Your task to perform on an android device: open app "Indeed Job Search" Image 0: 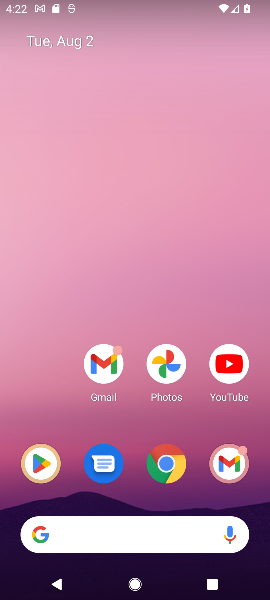
Step 0: click (40, 457)
Your task to perform on an android device: open app "Indeed Job Search" Image 1: 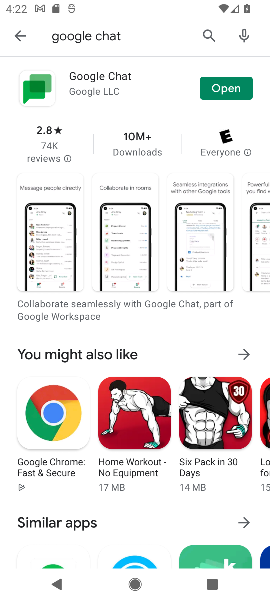
Step 1: click (207, 35)
Your task to perform on an android device: open app "Indeed Job Search" Image 2: 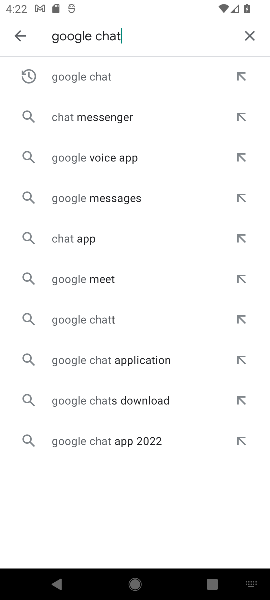
Step 2: click (249, 32)
Your task to perform on an android device: open app "Indeed Job Search" Image 3: 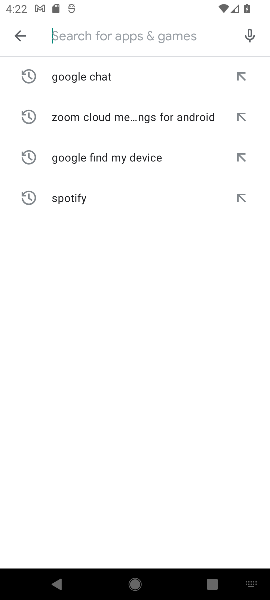
Step 3: type "Indeed Job Search"
Your task to perform on an android device: open app "Indeed Job Search" Image 4: 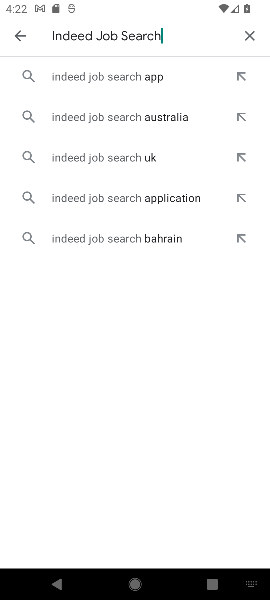
Step 4: click (137, 74)
Your task to perform on an android device: open app "Indeed Job Search" Image 5: 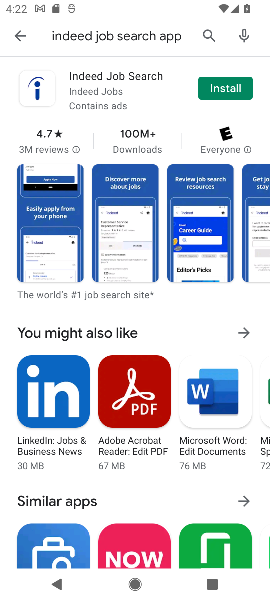
Step 5: task complete